Your task to perform on an android device: turn on location history Image 0: 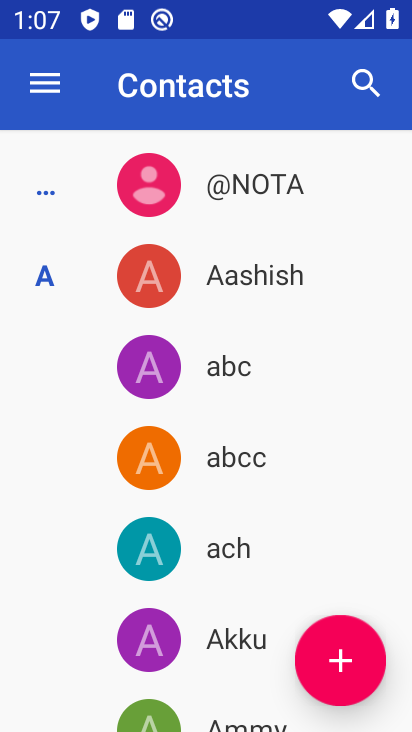
Step 0: press home button
Your task to perform on an android device: turn on location history Image 1: 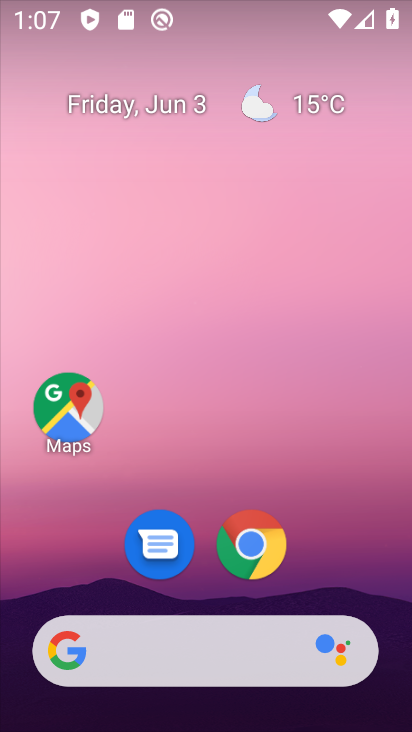
Step 1: drag from (254, 617) to (372, 74)
Your task to perform on an android device: turn on location history Image 2: 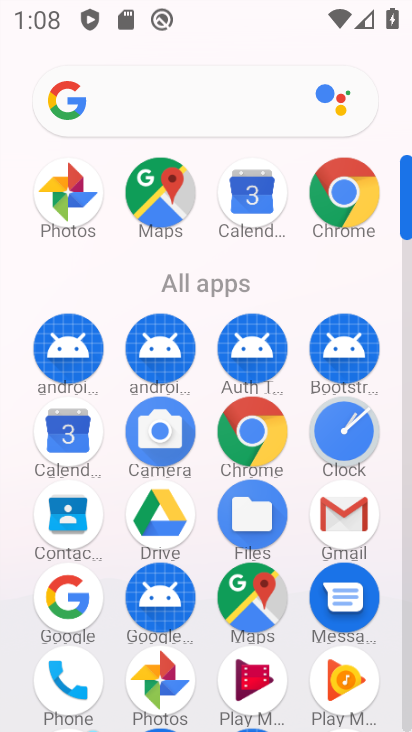
Step 2: drag from (120, 639) to (126, 17)
Your task to perform on an android device: turn on location history Image 3: 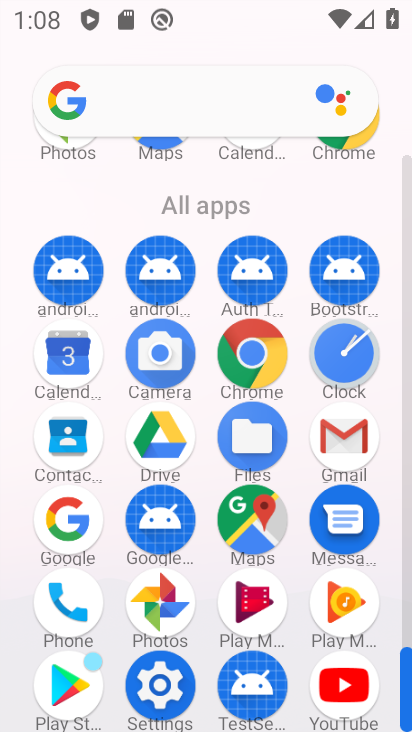
Step 3: click (175, 679)
Your task to perform on an android device: turn on location history Image 4: 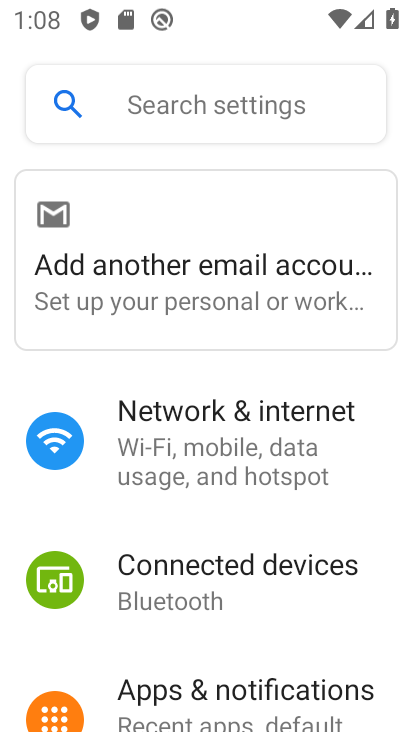
Step 4: drag from (196, 621) to (188, 147)
Your task to perform on an android device: turn on location history Image 5: 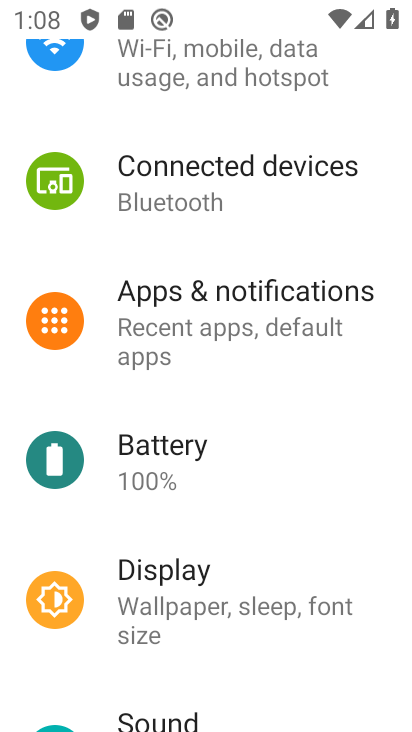
Step 5: drag from (204, 578) to (165, 266)
Your task to perform on an android device: turn on location history Image 6: 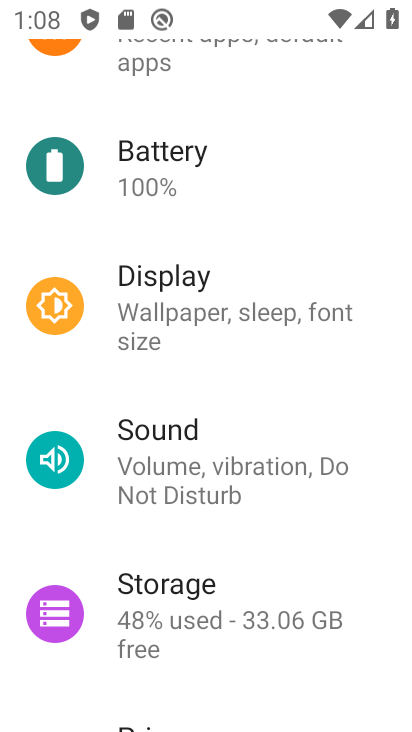
Step 6: drag from (290, 689) to (280, 200)
Your task to perform on an android device: turn on location history Image 7: 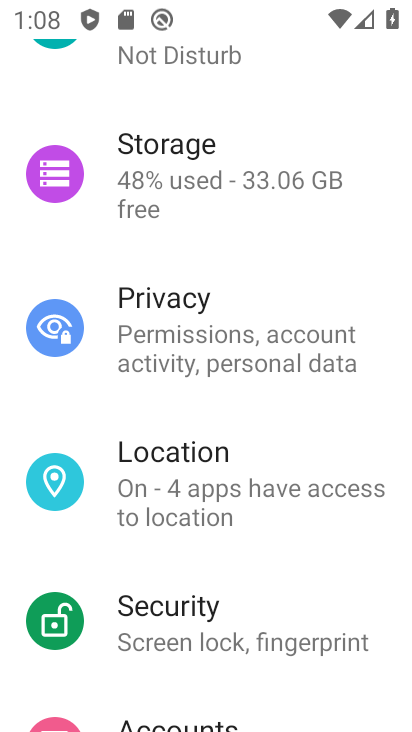
Step 7: click (240, 474)
Your task to perform on an android device: turn on location history Image 8: 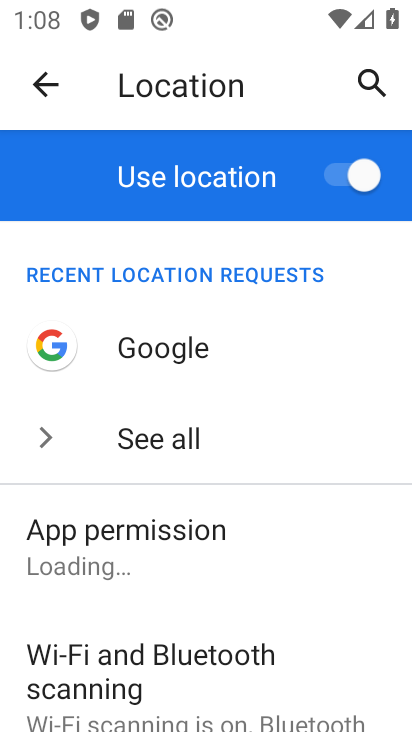
Step 8: drag from (240, 474) to (191, 3)
Your task to perform on an android device: turn on location history Image 9: 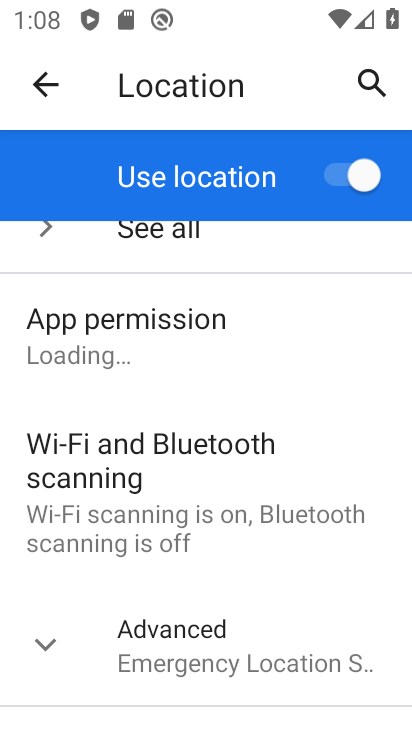
Step 9: click (168, 642)
Your task to perform on an android device: turn on location history Image 10: 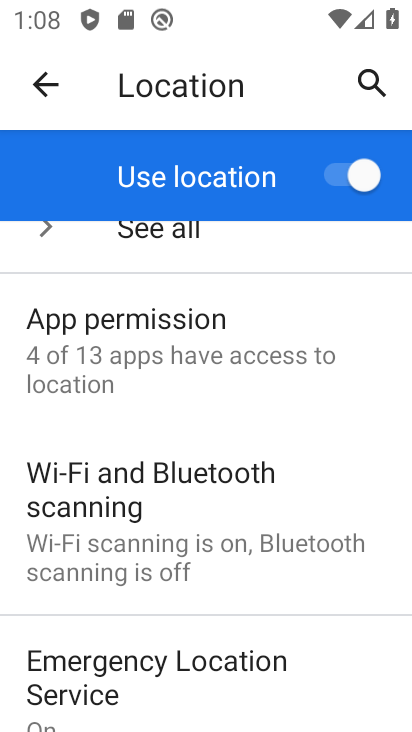
Step 10: drag from (238, 643) to (128, 81)
Your task to perform on an android device: turn on location history Image 11: 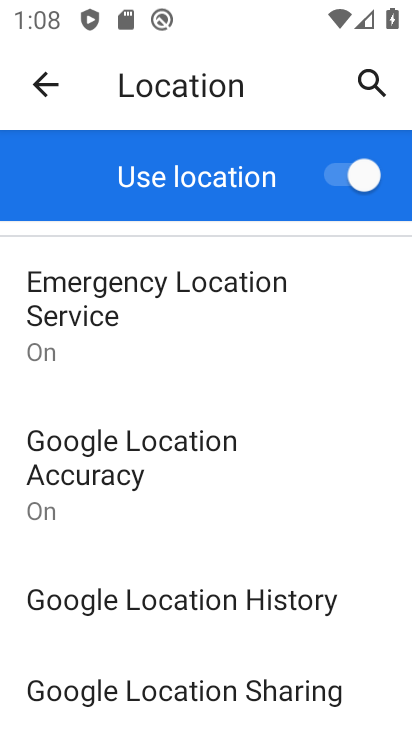
Step 11: click (165, 617)
Your task to perform on an android device: turn on location history Image 12: 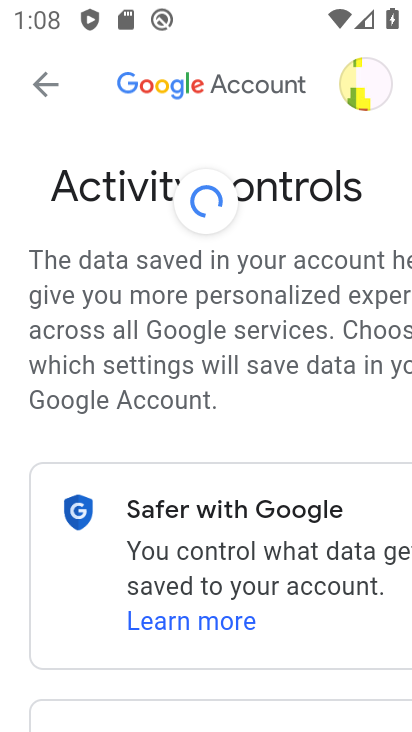
Step 12: task complete